Your task to perform on an android device: check battery use Image 0: 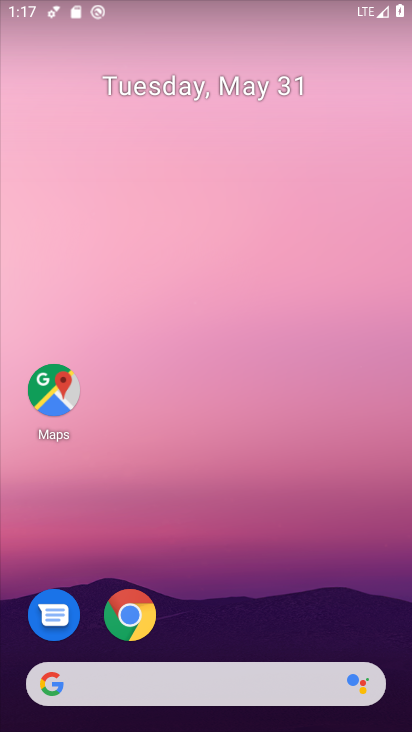
Step 0: drag from (205, 527) to (284, 4)
Your task to perform on an android device: check battery use Image 1: 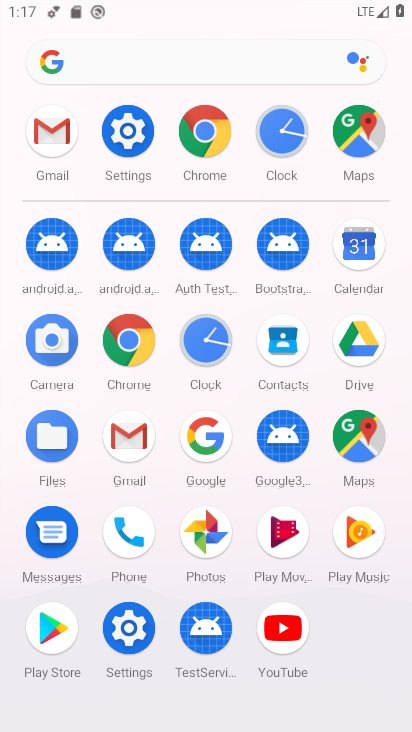
Step 1: click (126, 145)
Your task to perform on an android device: check battery use Image 2: 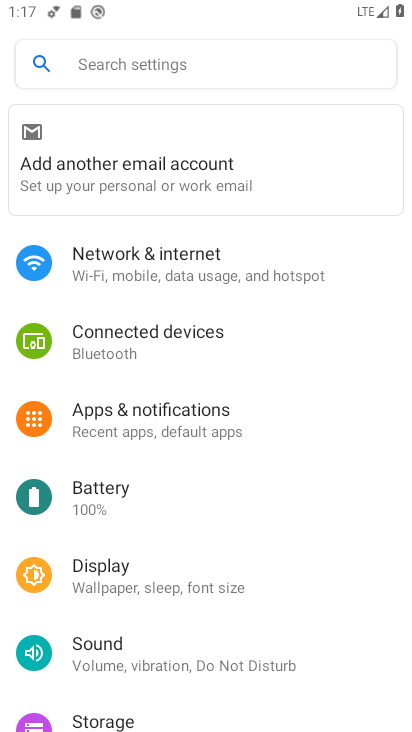
Step 2: click (111, 498)
Your task to perform on an android device: check battery use Image 3: 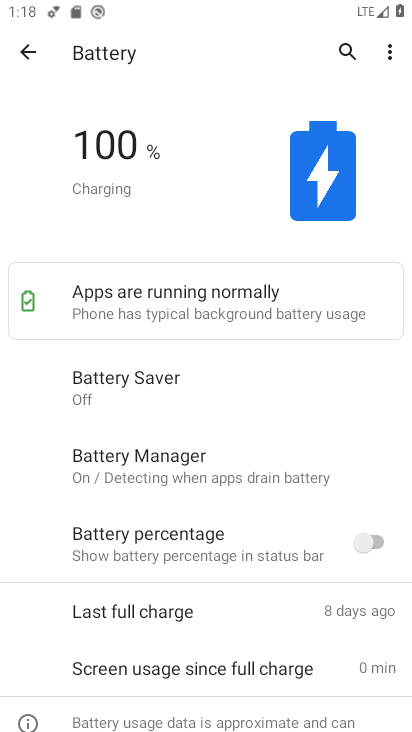
Step 3: click (383, 56)
Your task to perform on an android device: check battery use Image 4: 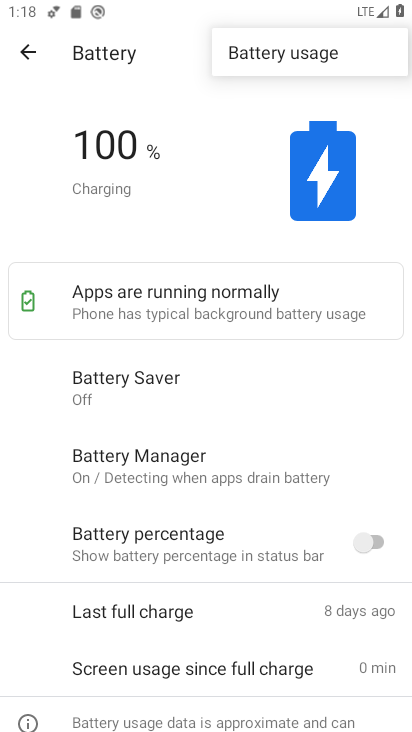
Step 4: click (333, 53)
Your task to perform on an android device: check battery use Image 5: 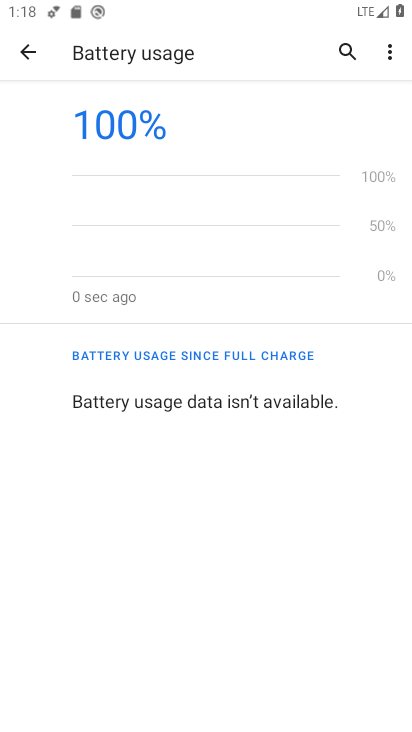
Step 5: task complete